Your task to perform on an android device: change alarm snooze length Image 0: 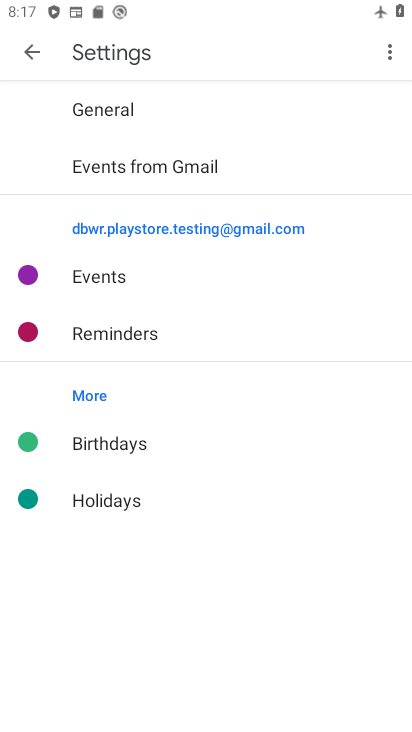
Step 0: press home button
Your task to perform on an android device: change alarm snooze length Image 1: 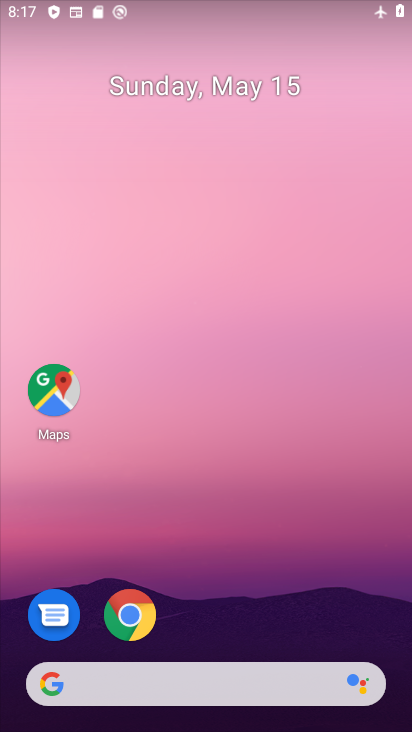
Step 1: drag from (198, 661) to (199, 297)
Your task to perform on an android device: change alarm snooze length Image 2: 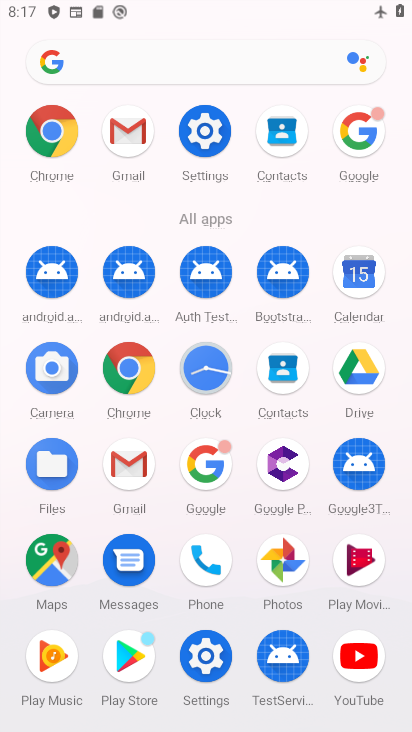
Step 2: click (202, 371)
Your task to perform on an android device: change alarm snooze length Image 3: 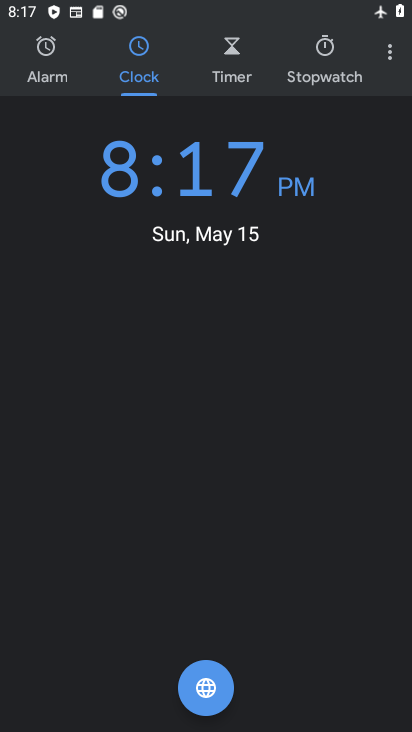
Step 3: click (387, 52)
Your task to perform on an android device: change alarm snooze length Image 4: 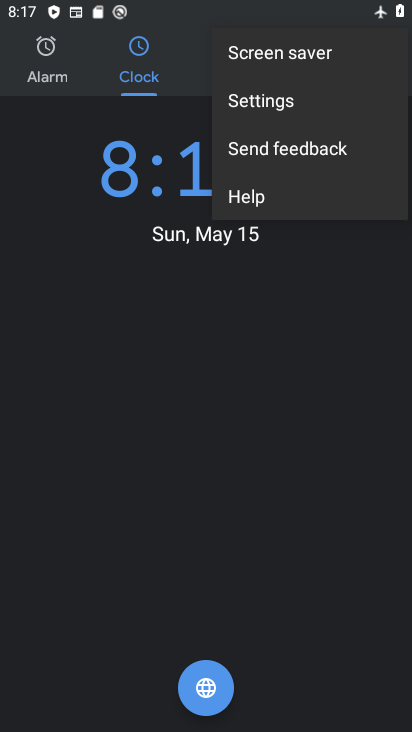
Step 4: click (245, 94)
Your task to perform on an android device: change alarm snooze length Image 5: 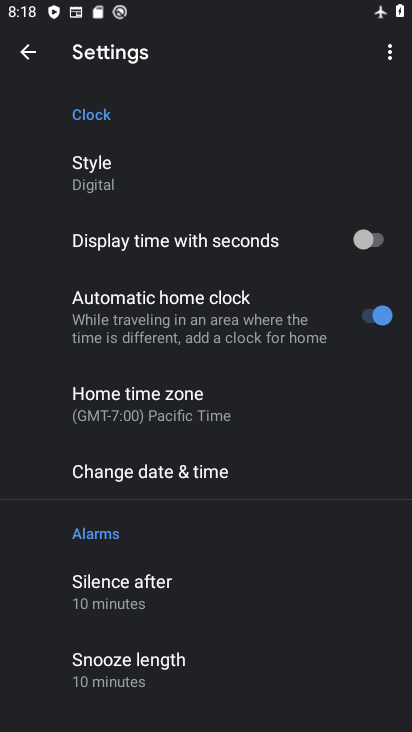
Step 5: task complete